Your task to perform on an android device: install app "TextNow: Call + Text Unlimited" Image 0: 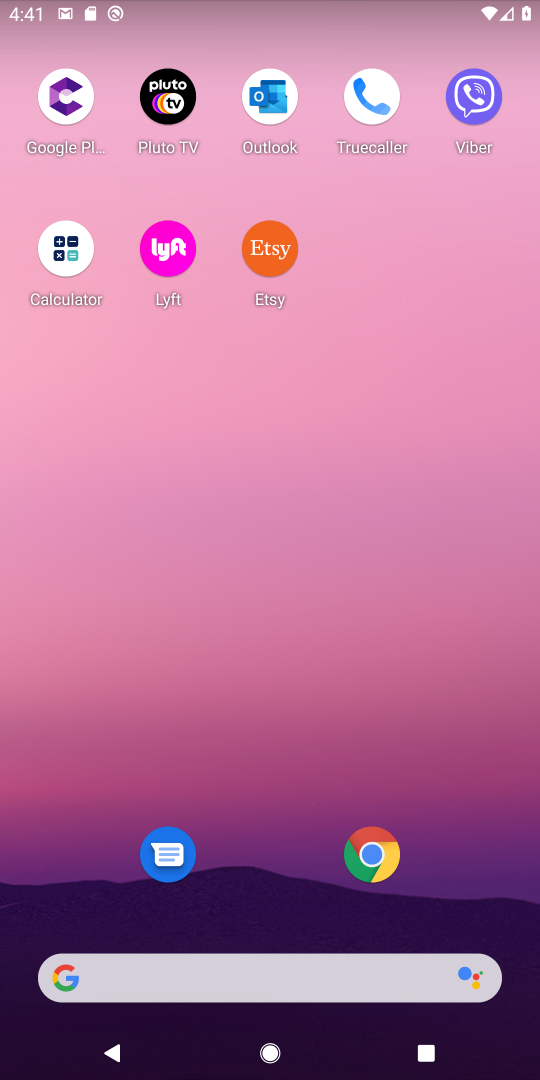
Step 0: press home button
Your task to perform on an android device: install app "TextNow: Call + Text Unlimited" Image 1: 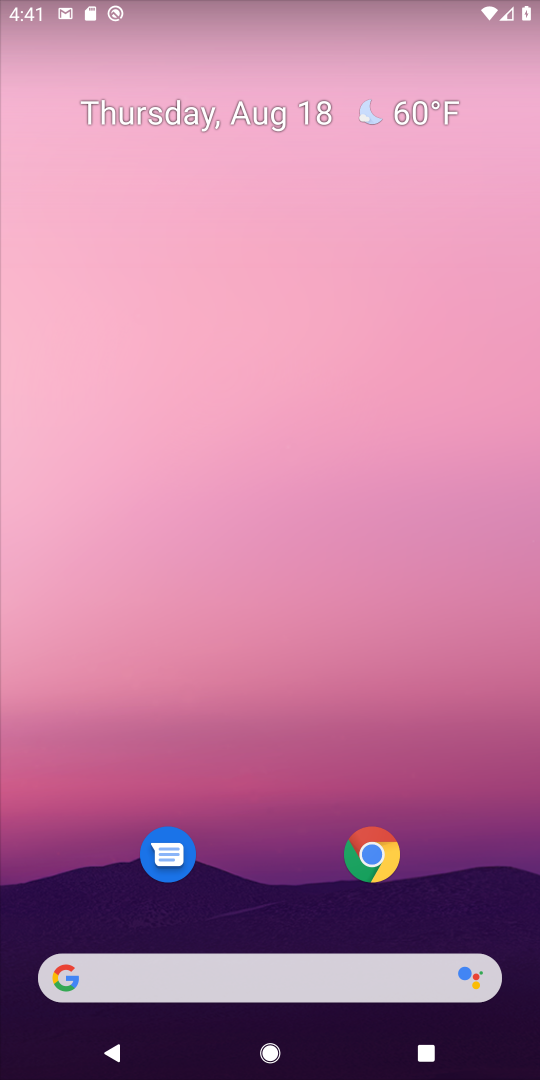
Step 1: drag from (228, 870) to (222, 13)
Your task to perform on an android device: install app "TextNow: Call + Text Unlimited" Image 2: 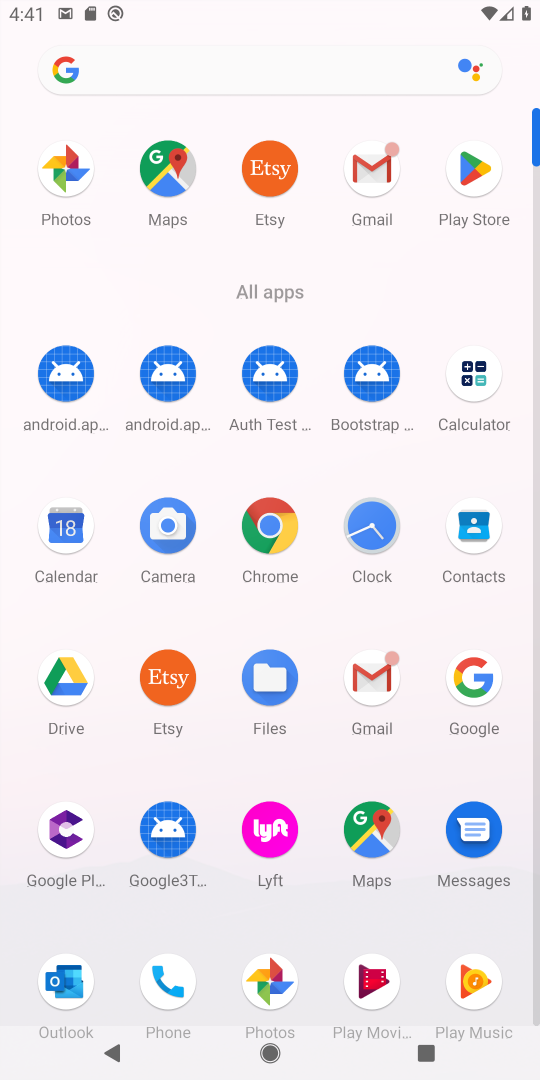
Step 2: click (473, 182)
Your task to perform on an android device: install app "TextNow: Call + Text Unlimited" Image 3: 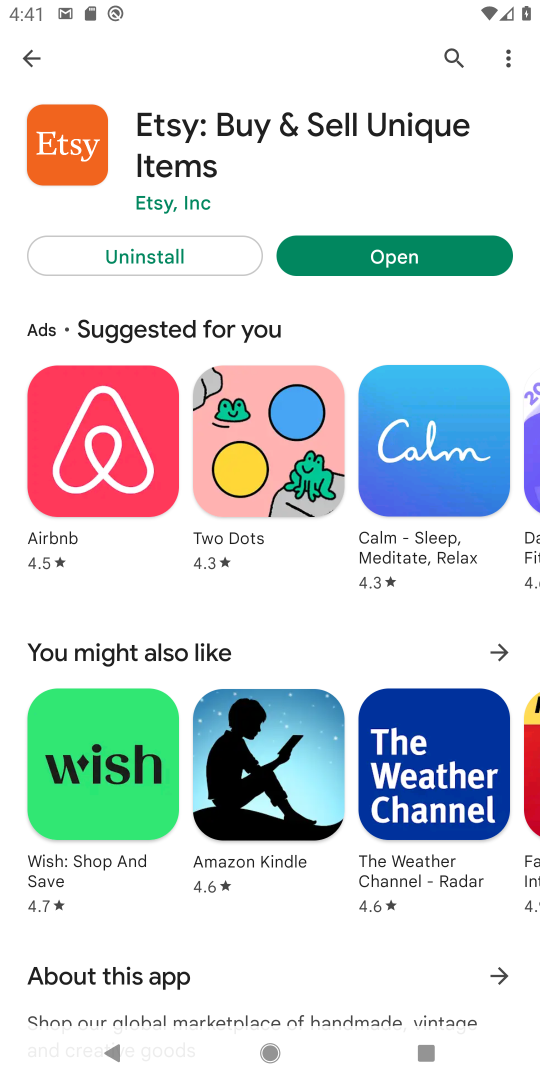
Step 3: click (51, 83)
Your task to perform on an android device: install app "TextNow: Call + Text Unlimited" Image 4: 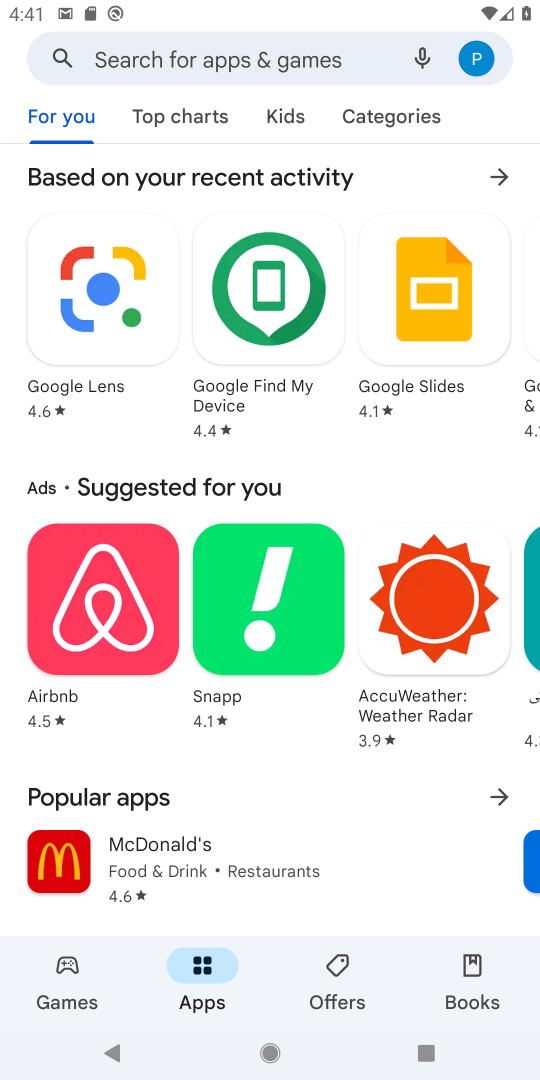
Step 4: click (207, 60)
Your task to perform on an android device: install app "TextNow: Call + Text Unlimited" Image 5: 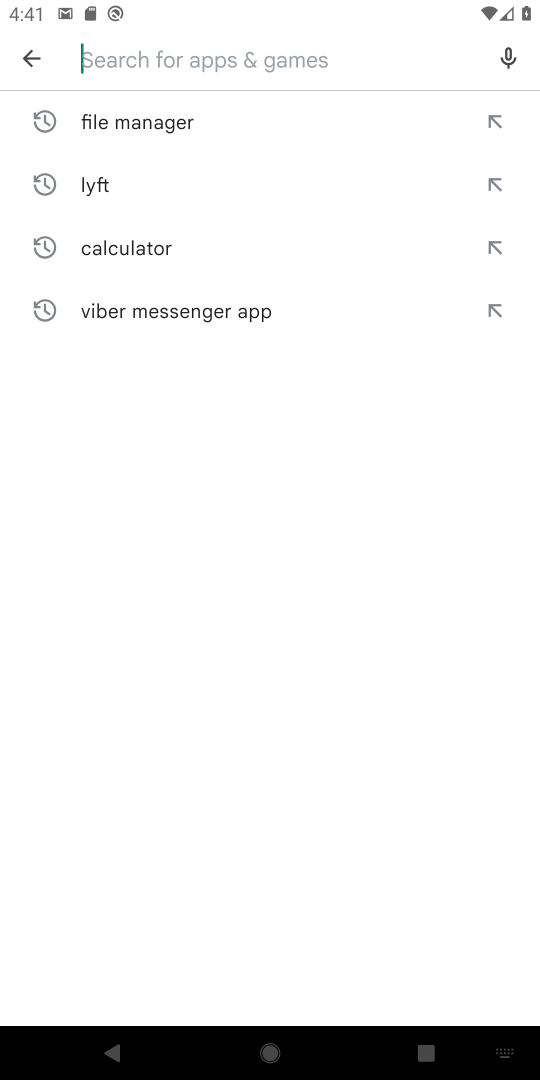
Step 5: type "TextNow: Call + Text Unlimited"
Your task to perform on an android device: install app "TextNow: Call + Text Unlimited" Image 6: 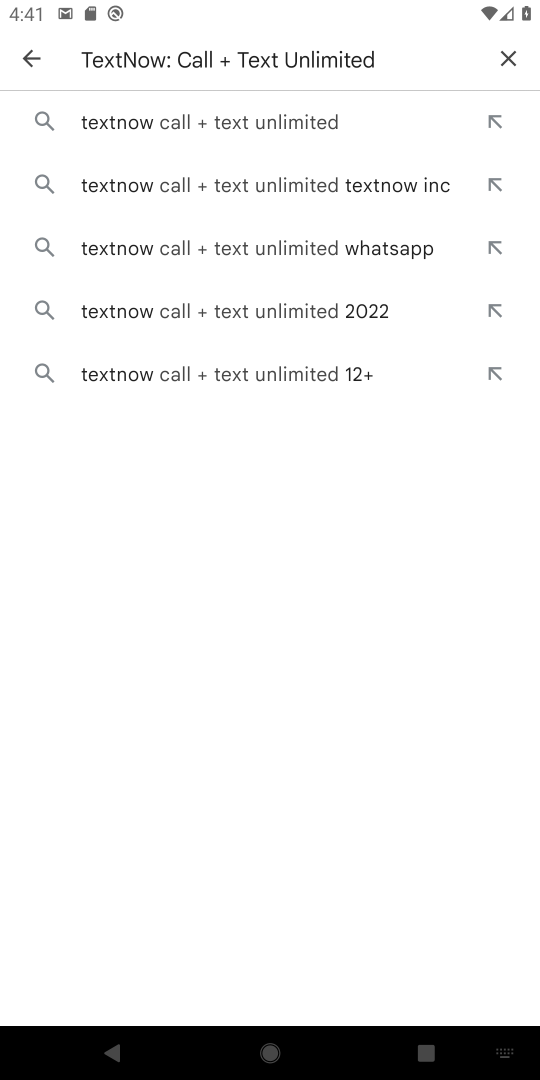
Step 6: click (283, 119)
Your task to perform on an android device: install app "TextNow: Call + Text Unlimited" Image 7: 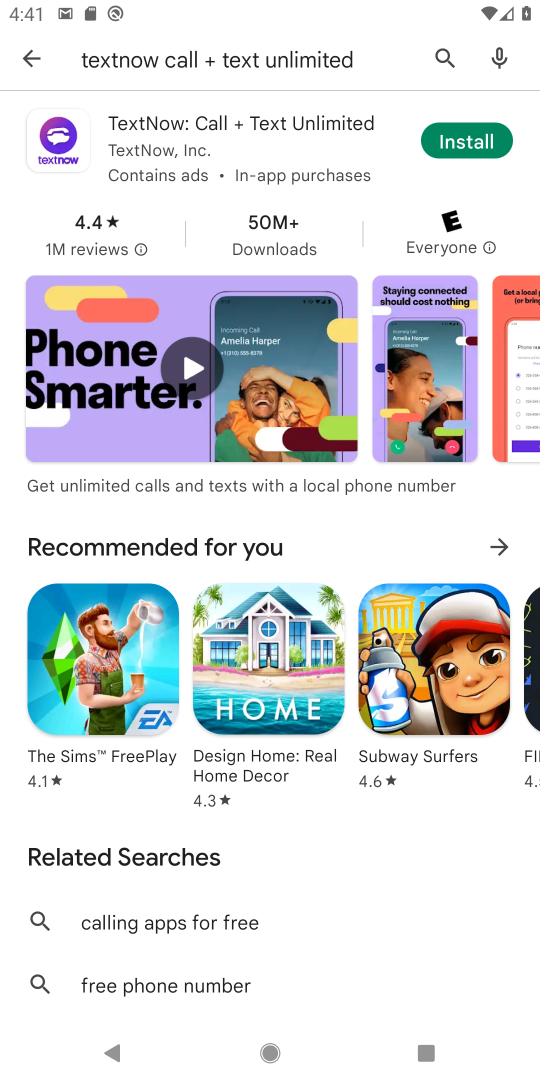
Step 7: click (466, 137)
Your task to perform on an android device: install app "TextNow: Call + Text Unlimited" Image 8: 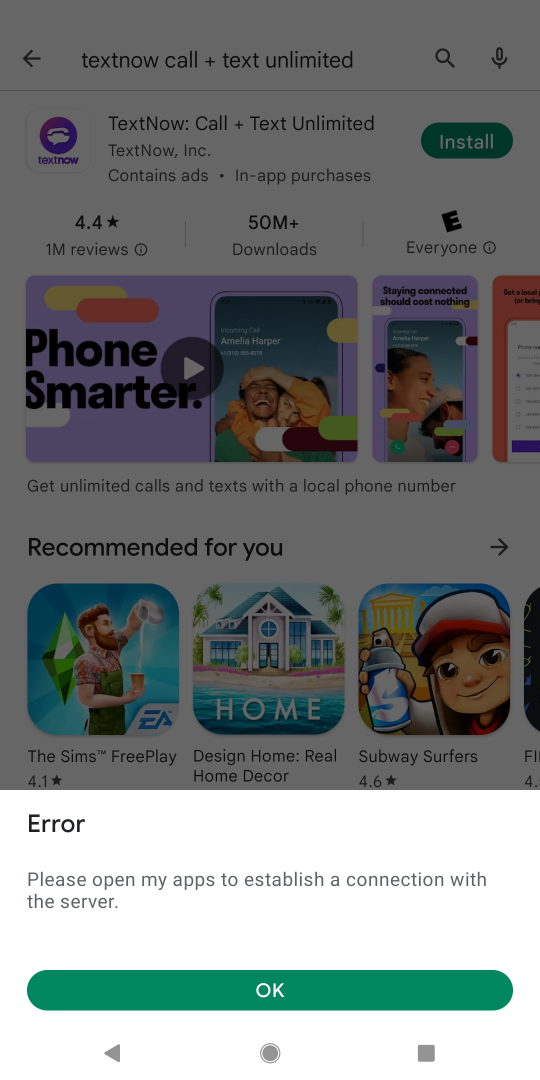
Step 8: click (286, 986)
Your task to perform on an android device: install app "TextNow: Call + Text Unlimited" Image 9: 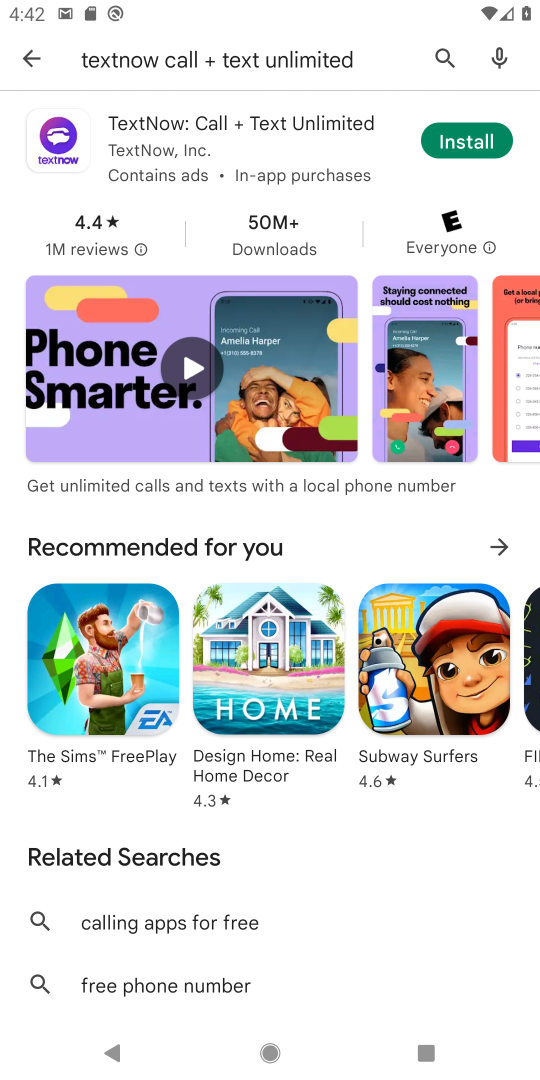
Step 9: click (443, 133)
Your task to perform on an android device: install app "TextNow: Call + Text Unlimited" Image 10: 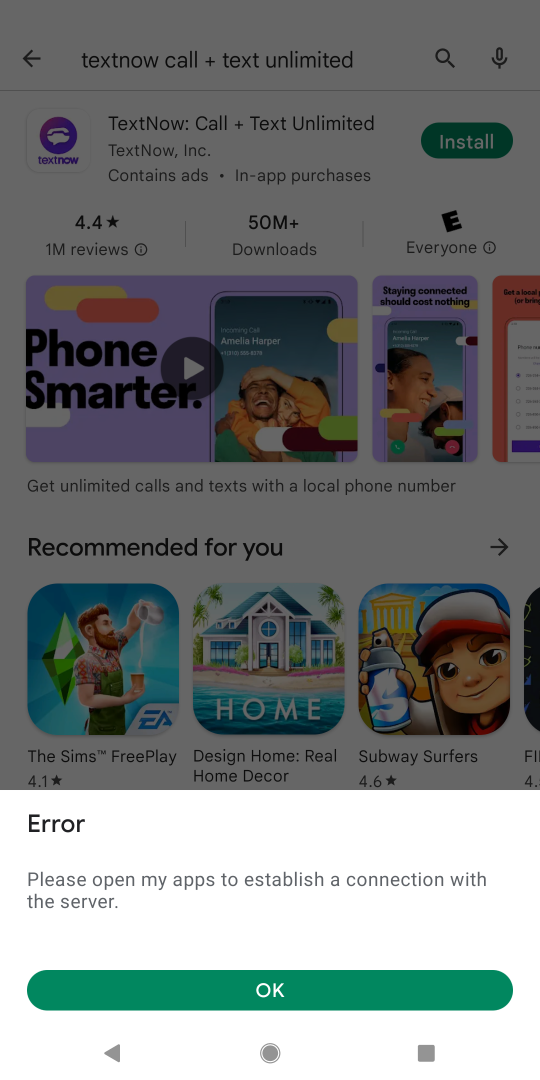
Step 10: task complete